Your task to perform on an android device: What's the weather going to be this weekend? Image 0: 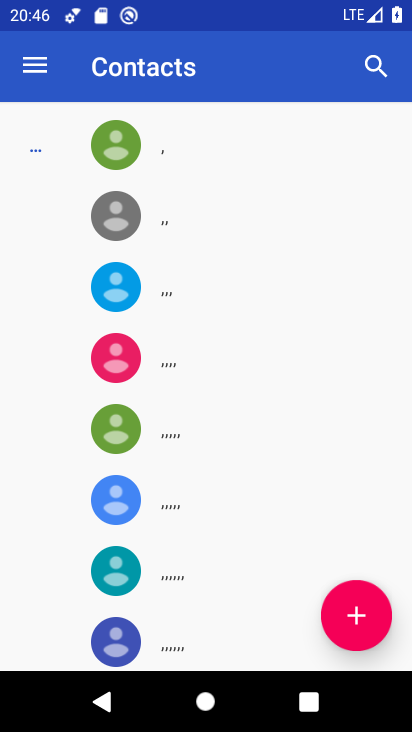
Step 0: press home button
Your task to perform on an android device: What's the weather going to be this weekend? Image 1: 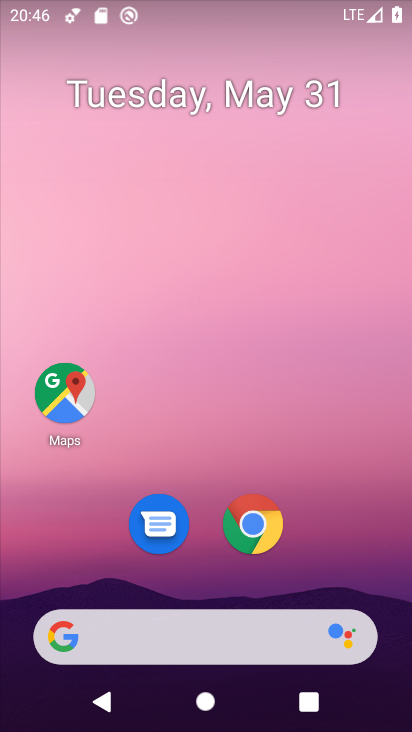
Step 1: click (224, 635)
Your task to perform on an android device: What's the weather going to be this weekend? Image 2: 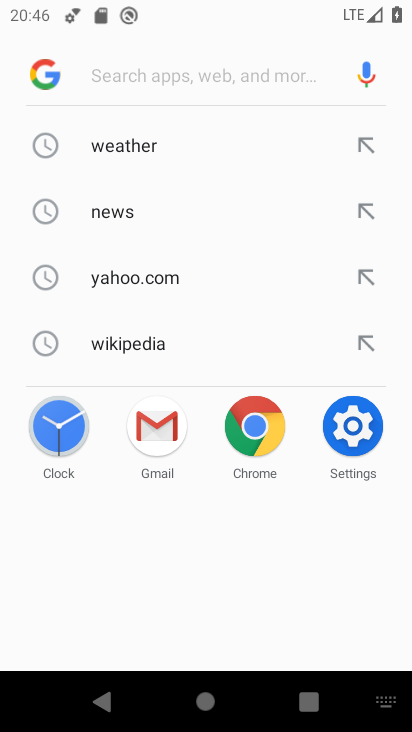
Step 2: click (133, 144)
Your task to perform on an android device: What's the weather going to be this weekend? Image 3: 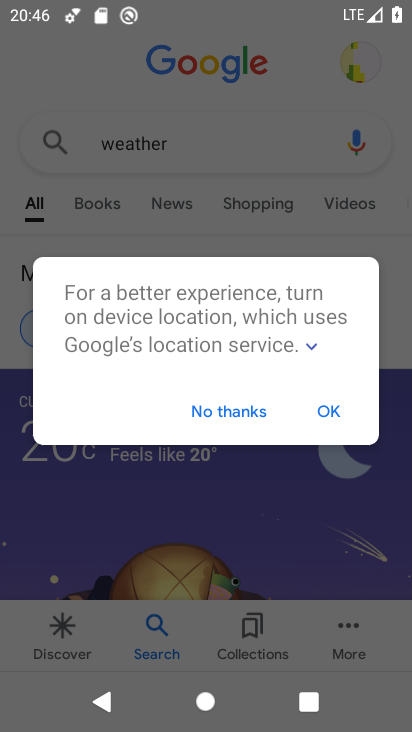
Step 3: click (334, 409)
Your task to perform on an android device: What's the weather going to be this weekend? Image 4: 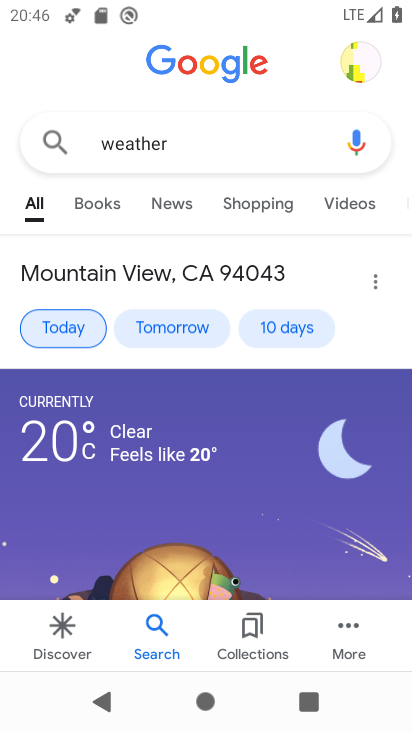
Step 4: click (58, 321)
Your task to perform on an android device: What's the weather going to be this weekend? Image 5: 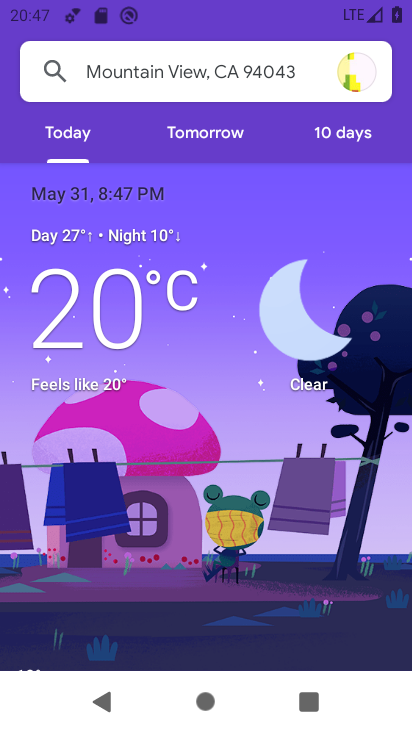
Step 5: click (213, 137)
Your task to perform on an android device: What's the weather going to be this weekend? Image 6: 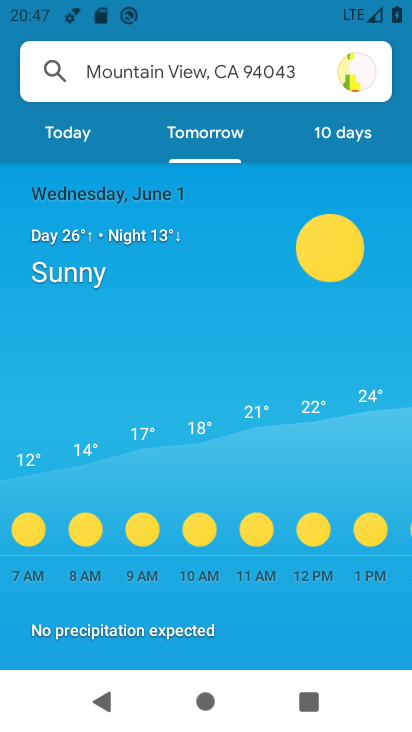
Step 6: click (343, 132)
Your task to perform on an android device: What's the weather going to be this weekend? Image 7: 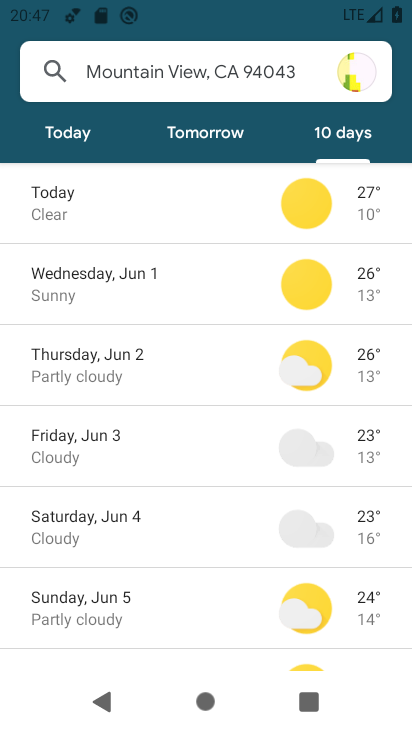
Step 7: click (164, 520)
Your task to perform on an android device: What's the weather going to be this weekend? Image 8: 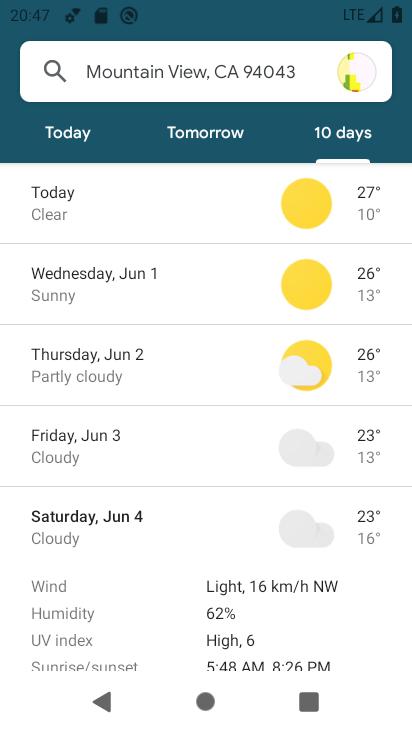
Step 8: task complete